Your task to perform on an android device: change your default location settings in chrome Image 0: 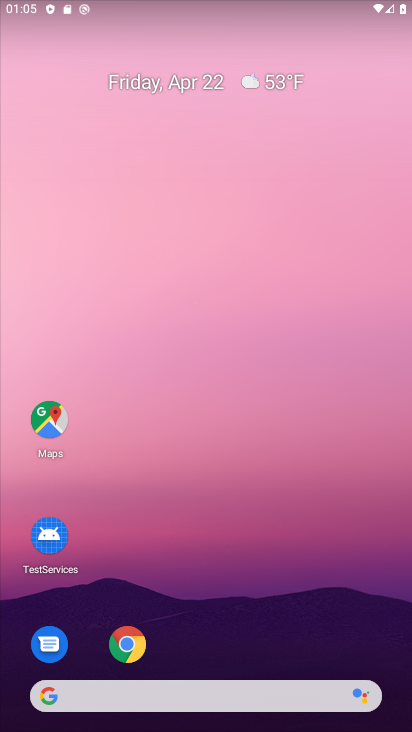
Step 0: drag from (259, 568) to (276, 157)
Your task to perform on an android device: change your default location settings in chrome Image 1: 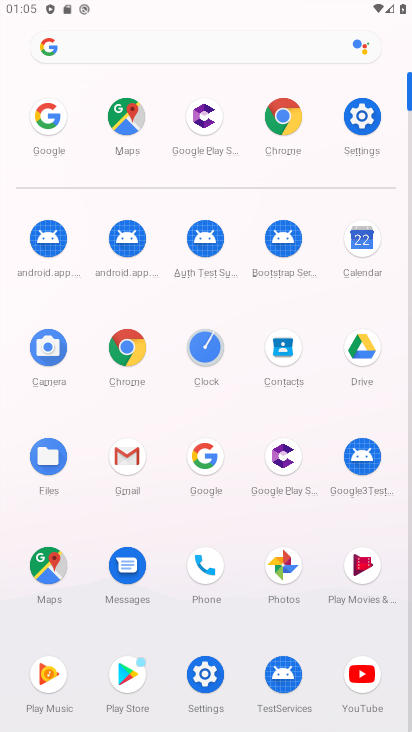
Step 1: click (123, 351)
Your task to perform on an android device: change your default location settings in chrome Image 2: 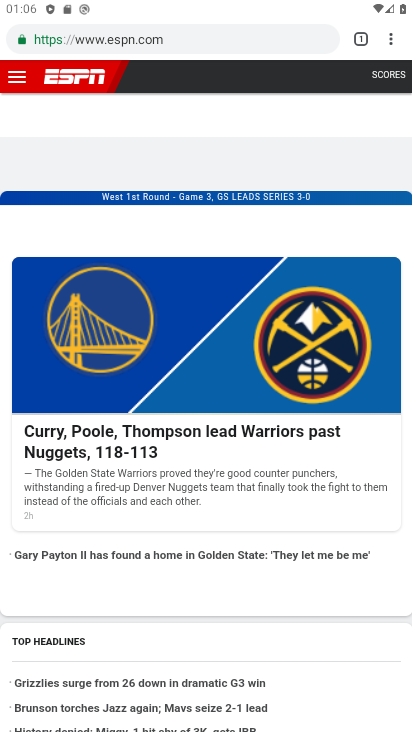
Step 2: drag from (393, 38) to (278, 518)
Your task to perform on an android device: change your default location settings in chrome Image 3: 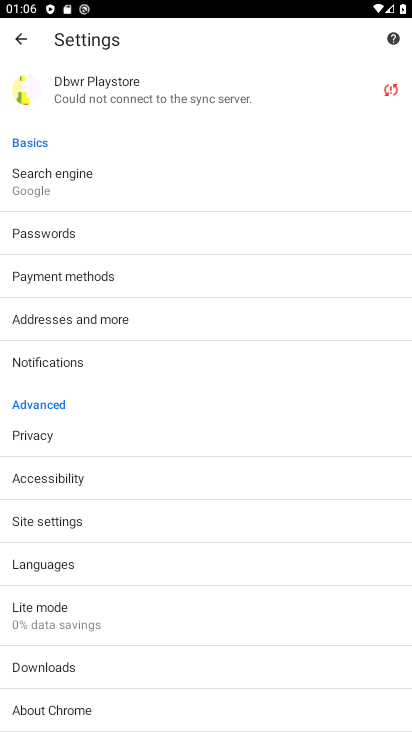
Step 3: click (49, 174)
Your task to perform on an android device: change your default location settings in chrome Image 4: 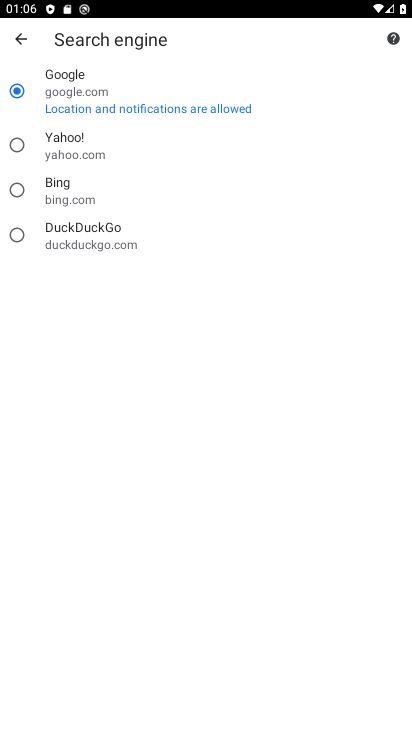
Step 4: task complete